Your task to perform on an android device: toggle wifi Image 0: 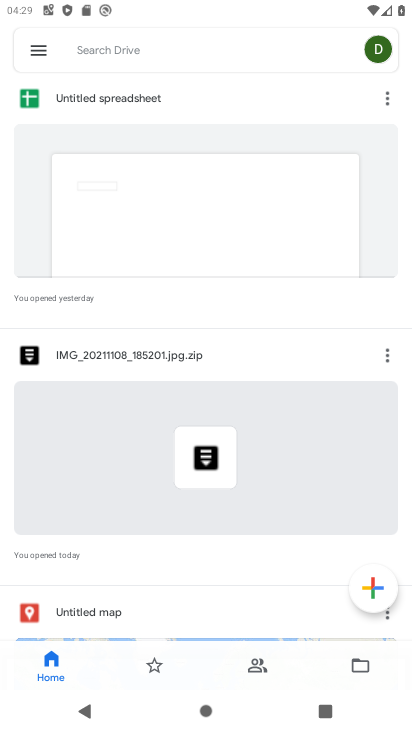
Step 0: press back button
Your task to perform on an android device: toggle wifi Image 1: 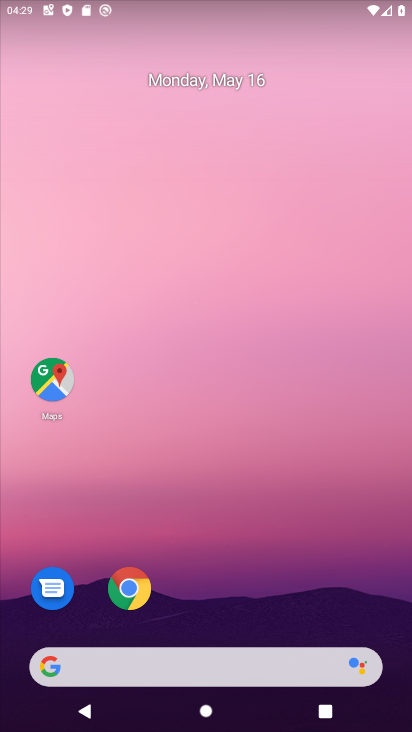
Step 1: drag from (258, 540) to (252, 3)
Your task to perform on an android device: toggle wifi Image 2: 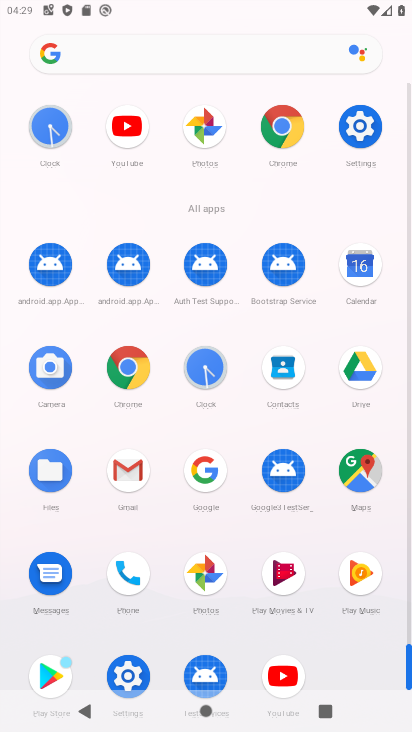
Step 2: drag from (7, 518) to (1, 207)
Your task to perform on an android device: toggle wifi Image 3: 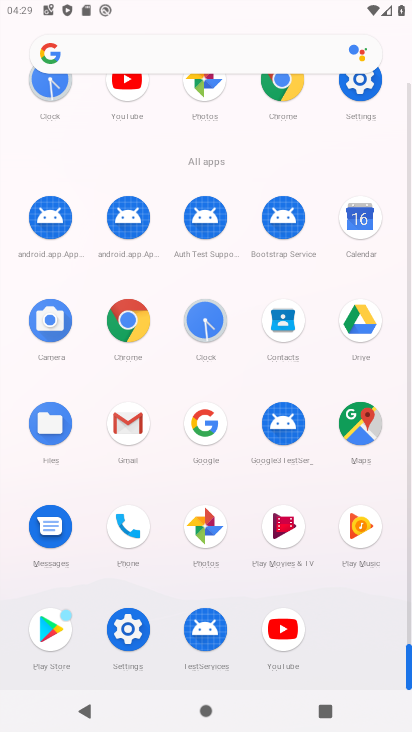
Step 3: click (132, 625)
Your task to perform on an android device: toggle wifi Image 4: 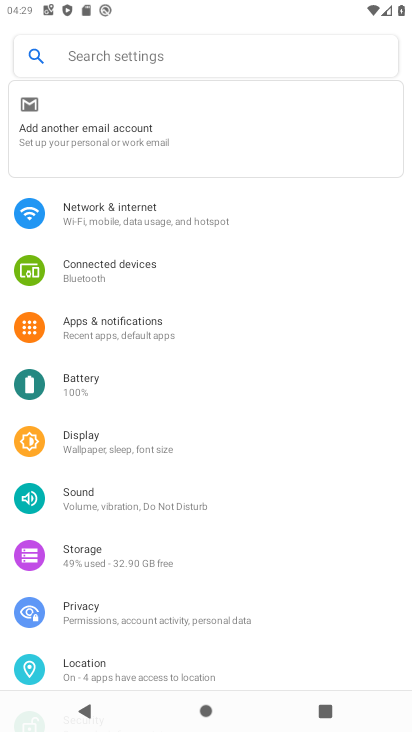
Step 4: click (188, 216)
Your task to perform on an android device: toggle wifi Image 5: 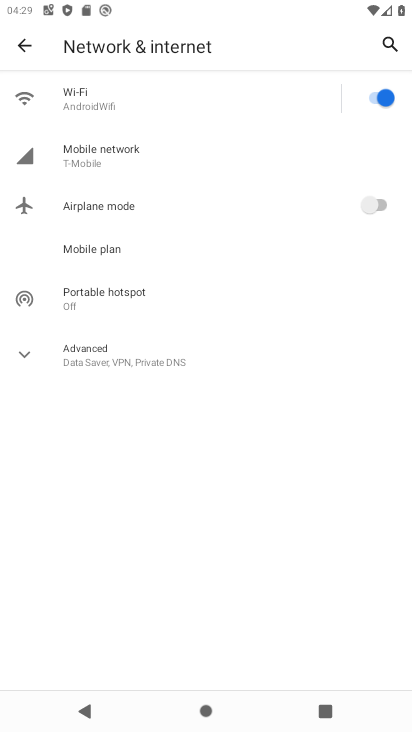
Step 5: click (31, 357)
Your task to perform on an android device: toggle wifi Image 6: 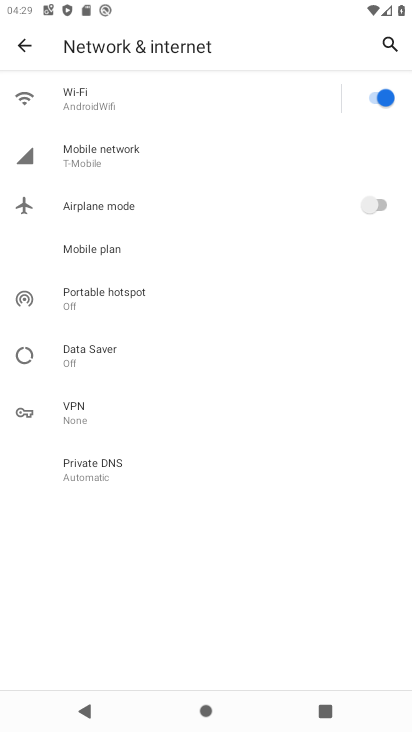
Step 6: click (385, 80)
Your task to perform on an android device: toggle wifi Image 7: 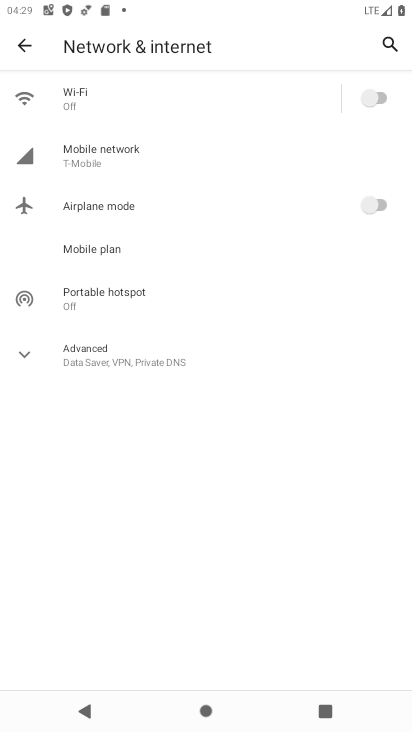
Step 7: task complete